Your task to perform on an android device: set default search engine in the chrome app Image 0: 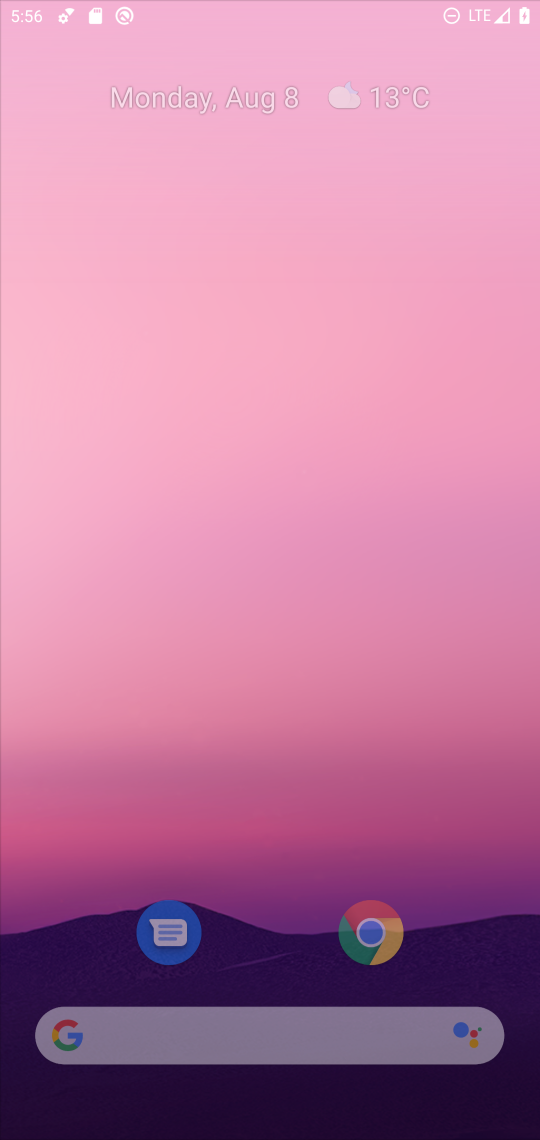
Step 0: press home button
Your task to perform on an android device: set default search engine in the chrome app Image 1: 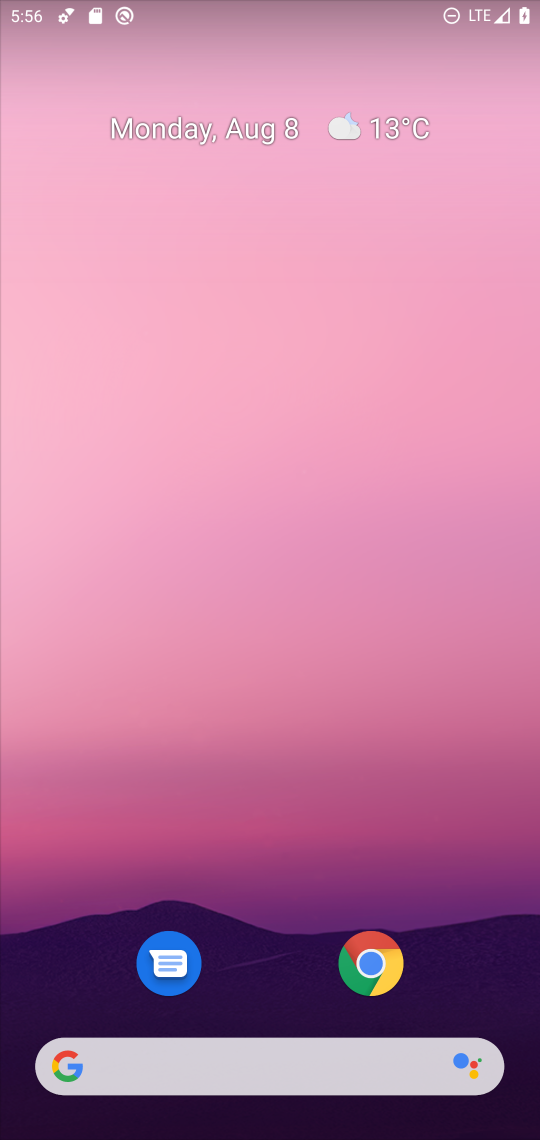
Step 1: click (363, 962)
Your task to perform on an android device: set default search engine in the chrome app Image 2: 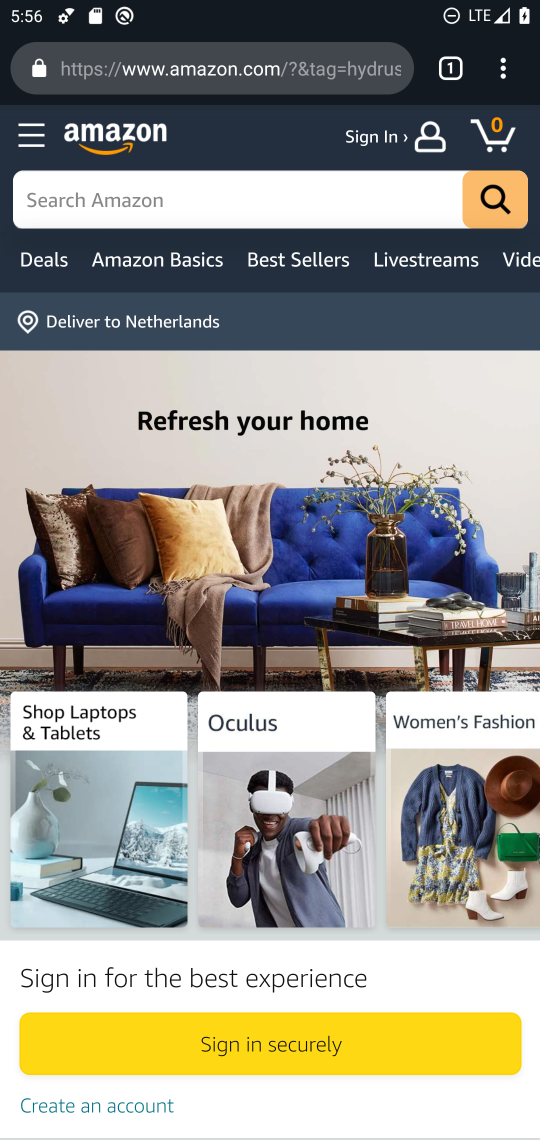
Step 2: click (509, 76)
Your task to perform on an android device: set default search engine in the chrome app Image 3: 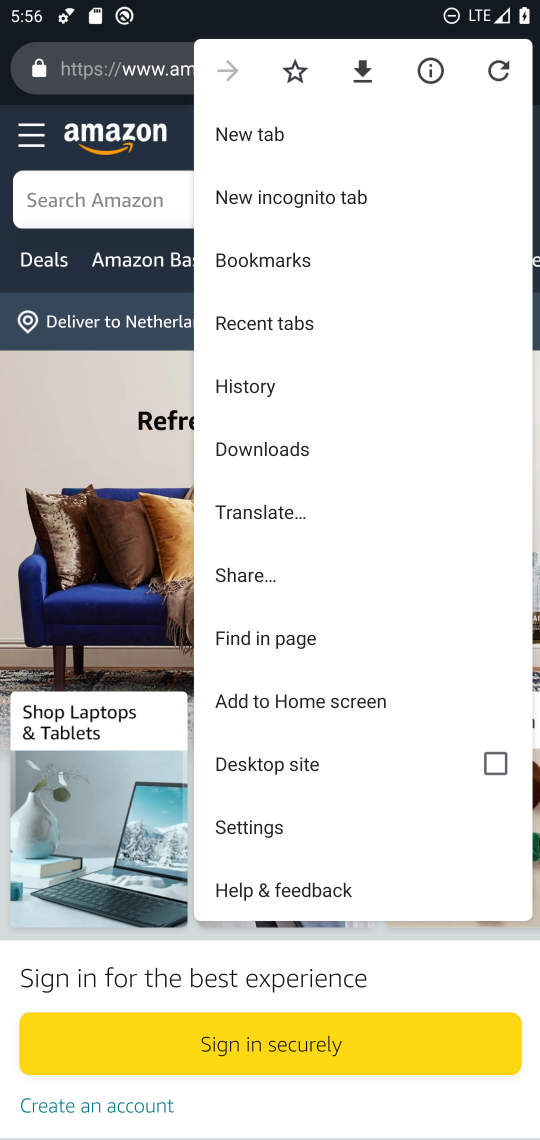
Step 3: click (280, 818)
Your task to perform on an android device: set default search engine in the chrome app Image 4: 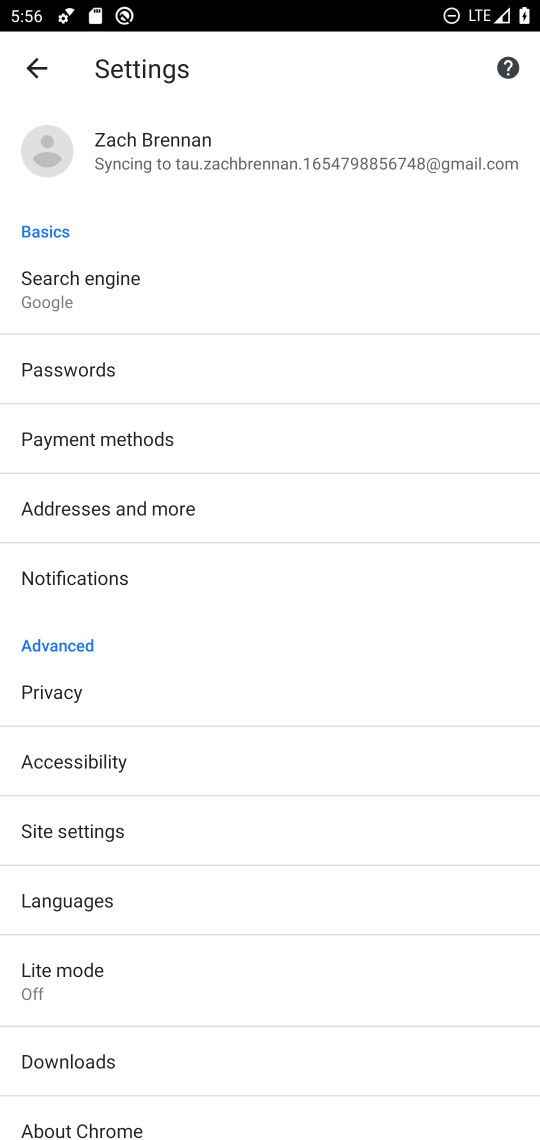
Step 4: click (110, 297)
Your task to perform on an android device: set default search engine in the chrome app Image 5: 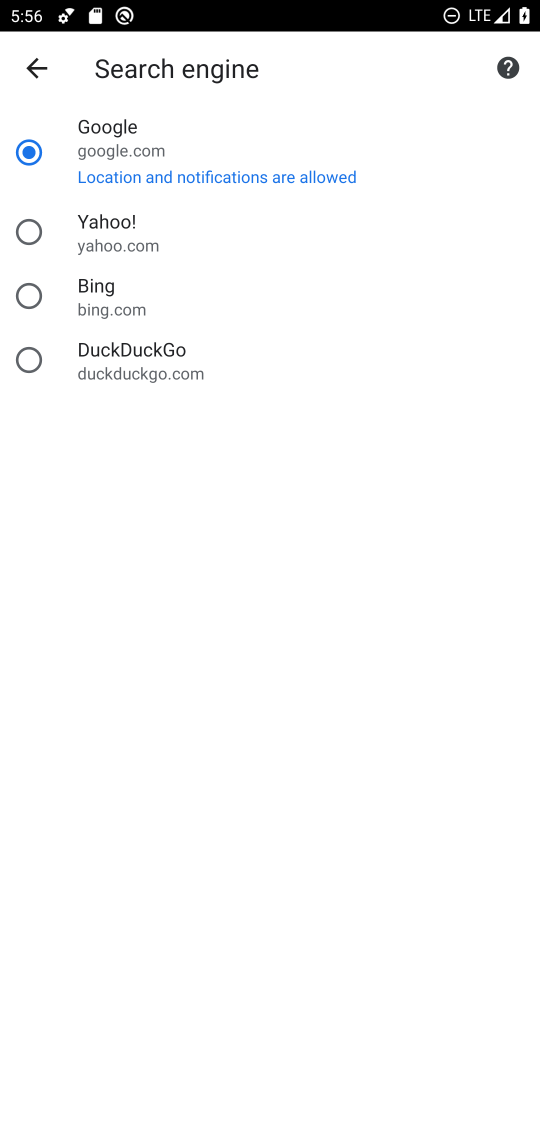
Step 5: click (121, 245)
Your task to perform on an android device: set default search engine in the chrome app Image 6: 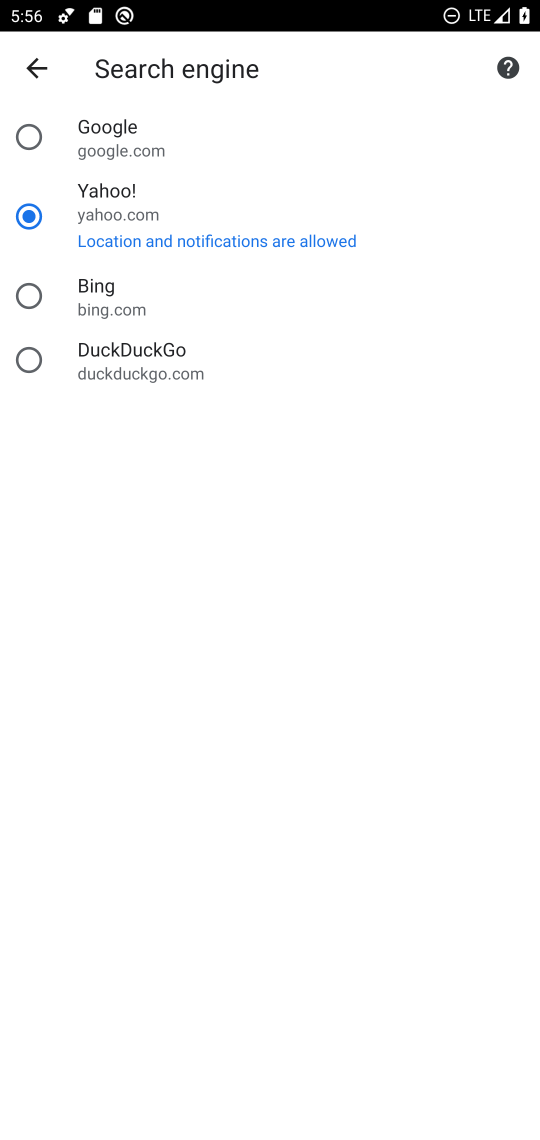
Step 6: task complete